Your task to perform on an android device: turn on translation in the chrome app Image 0: 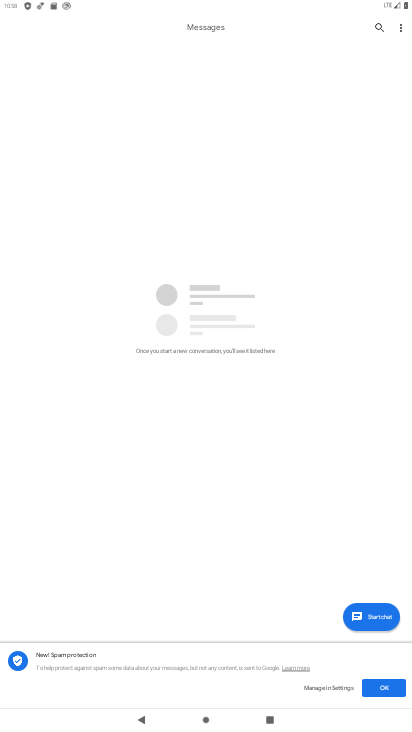
Step 0: press home button
Your task to perform on an android device: turn on translation in the chrome app Image 1: 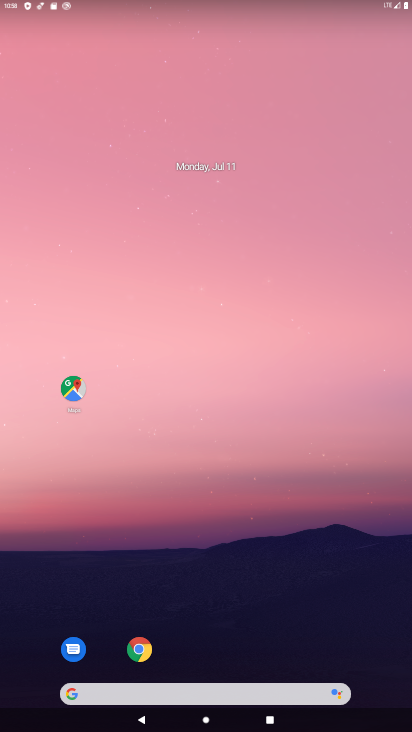
Step 1: drag from (249, 643) to (271, 128)
Your task to perform on an android device: turn on translation in the chrome app Image 2: 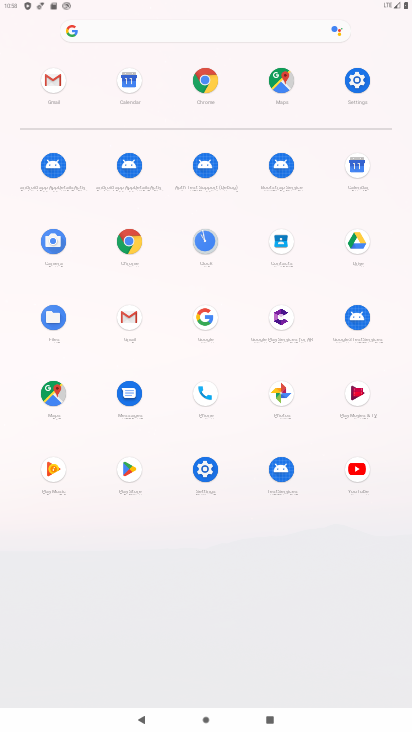
Step 2: click (134, 243)
Your task to perform on an android device: turn on translation in the chrome app Image 3: 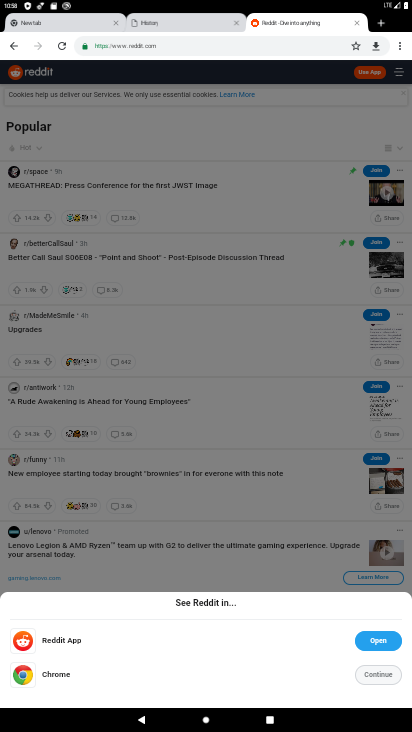
Step 3: drag from (399, 38) to (298, 307)
Your task to perform on an android device: turn on translation in the chrome app Image 4: 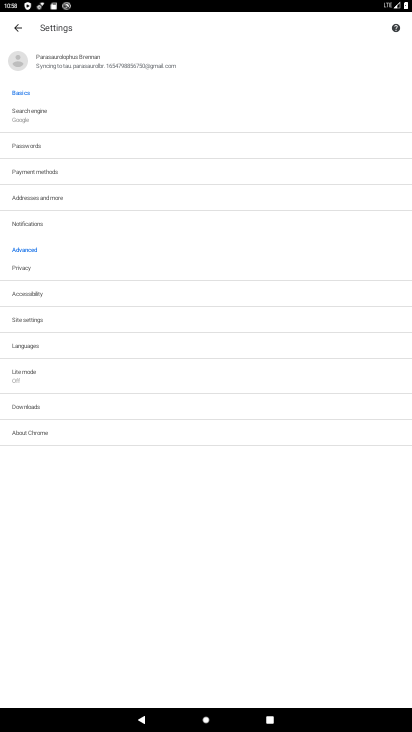
Step 4: click (33, 342)
Your task to perform on an android device: turn on translation in the chrome app Image 5: 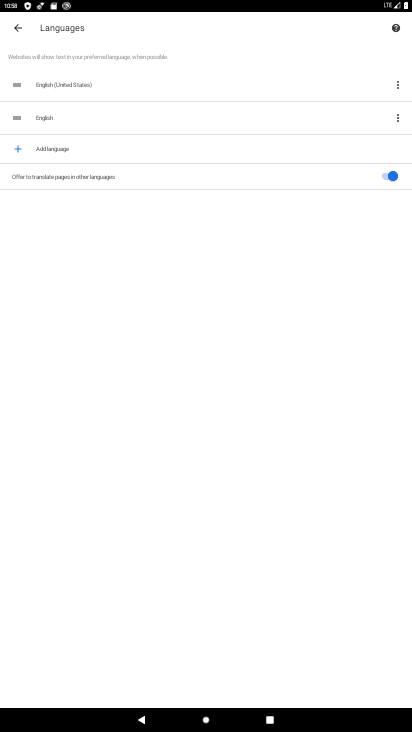
Step 5: task complete